Your task to perform on an android device: open the mobile data screen to see how much data has been used Image 0: 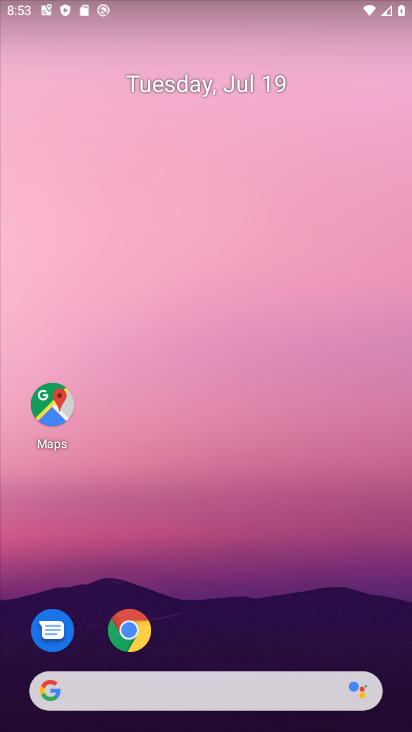
Step 0: drag from (198, 640) to (195, 41)
Your task to perform on an android device: open the mobile data screen to see how much data has been used Image 1: 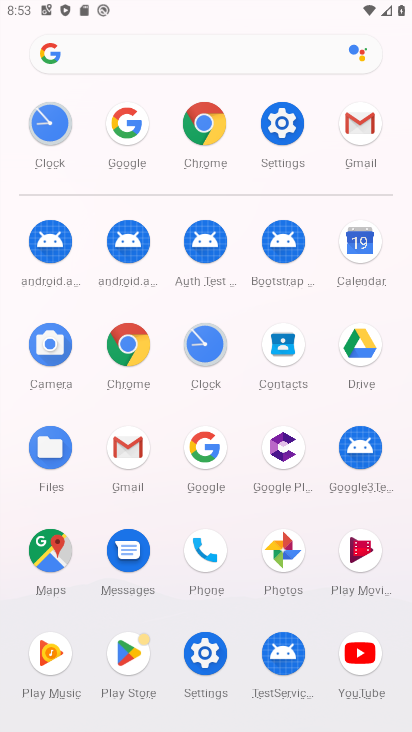
Step 1: click (283, 127)
Your task to perform on an android device: open the mobile data screen to see how much data has been used Image 2: 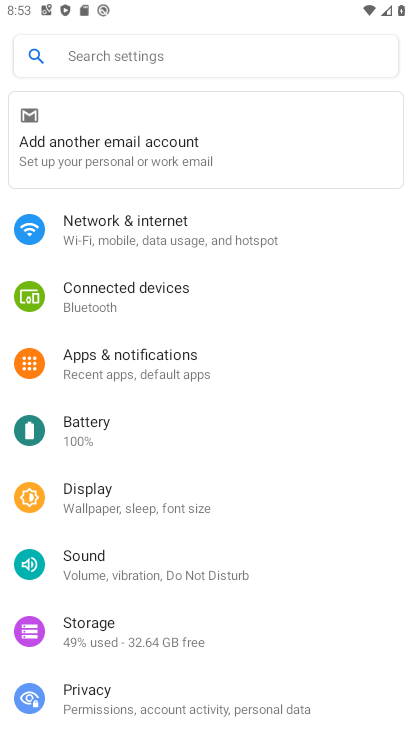
Step 2: click (124, 229)
Your task to perform on an android device: open the mobile data screen to see how much data has been used Image 3: 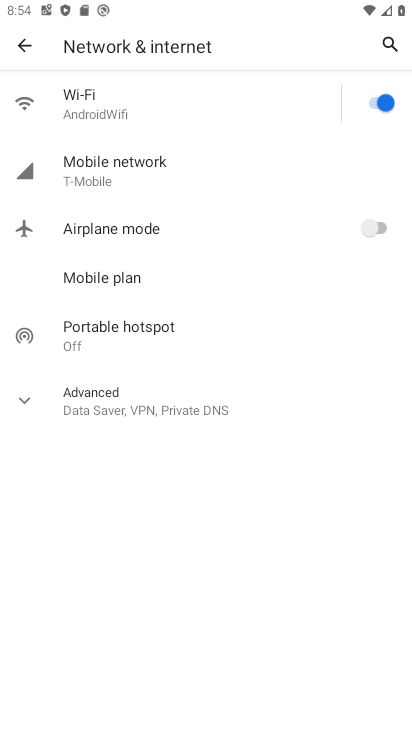
Step 3: click (129, 172)
Your task to perform on an android device: open the mobile data screen to see how much data has been used Image 4: 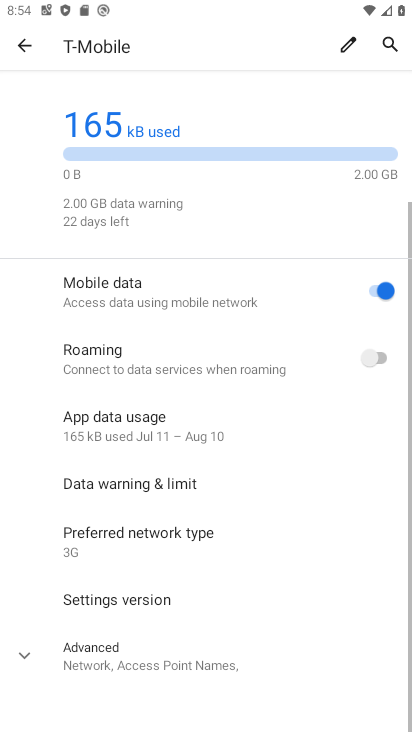
Step 4: task complete